Your task to perform on an android device: Open settings on Google Maps Image 0: 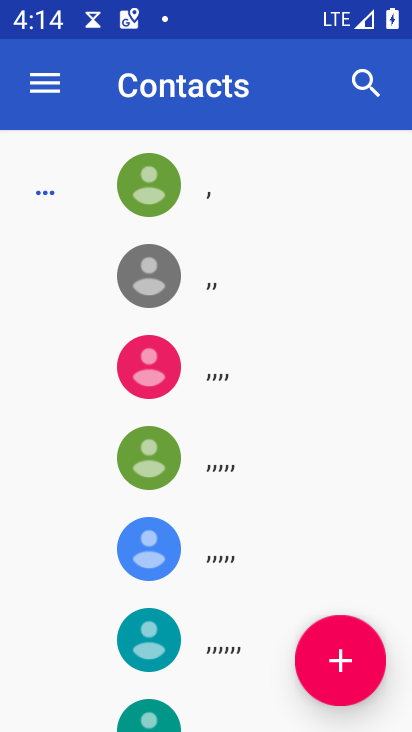
Step 0: press home button
Your task to perform on an android device: Open settings on Google Maps Image 1: 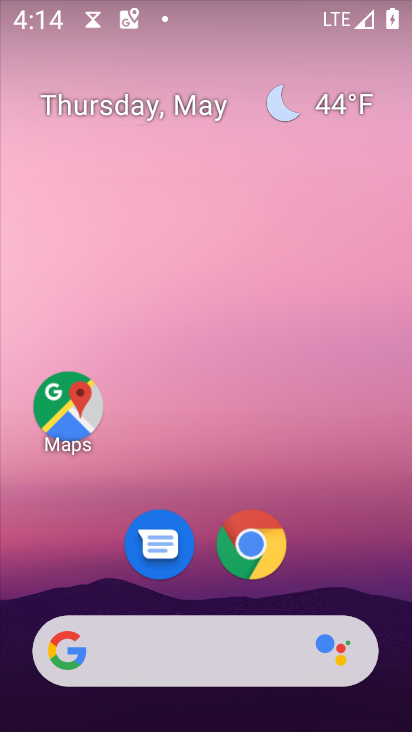
Step 1: click (78, 416)
Your task to perform on an android device: Open settings on Google Maps Image 2: 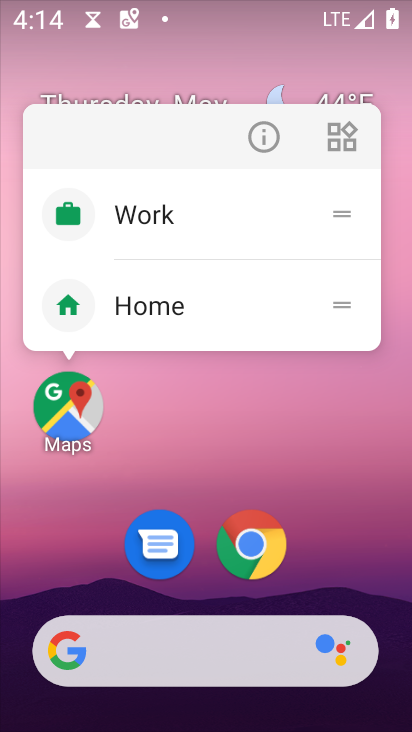
Step 2: click (79, 416)
Your task to perform on an android device: Open settings on Google Maps Image 3: 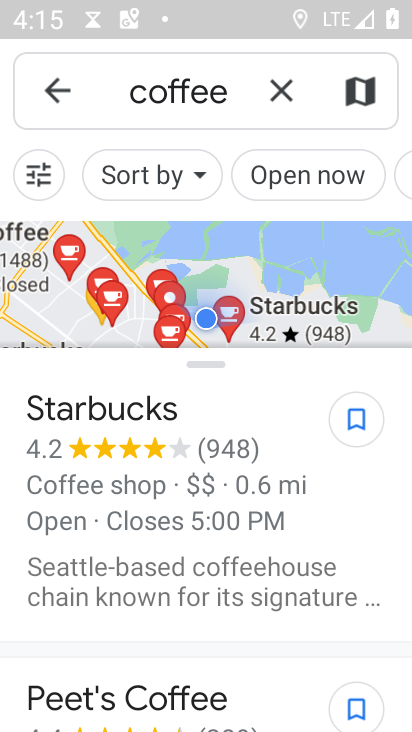
Step 3: click (64, 91)
Your task to perform on an android device: Open settings on Google Maps Image 4: 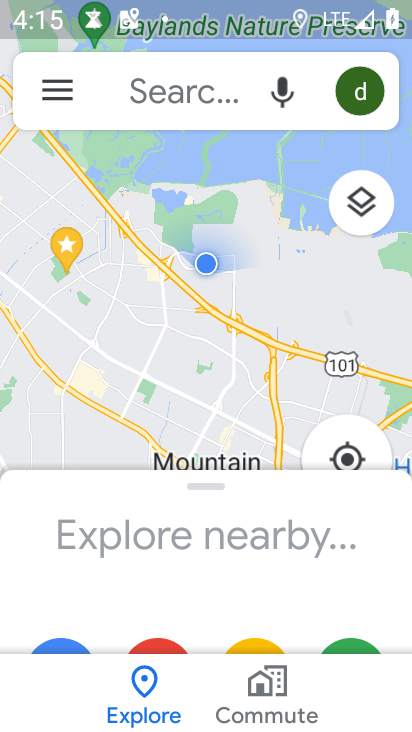
Step 4: click (63, 88)
Your task to perform on an android device: Open settings on Google Maps Image 5: 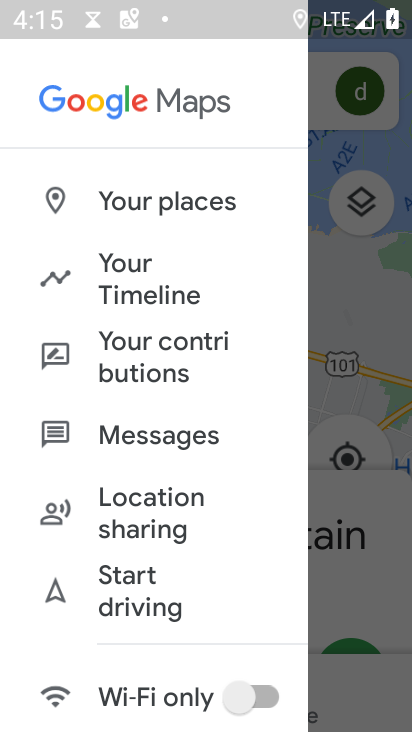
Step 5: drag from (111, 633) to (177, 249)
Your task to perform on an android device: Open settings on Google Maps Image 6: 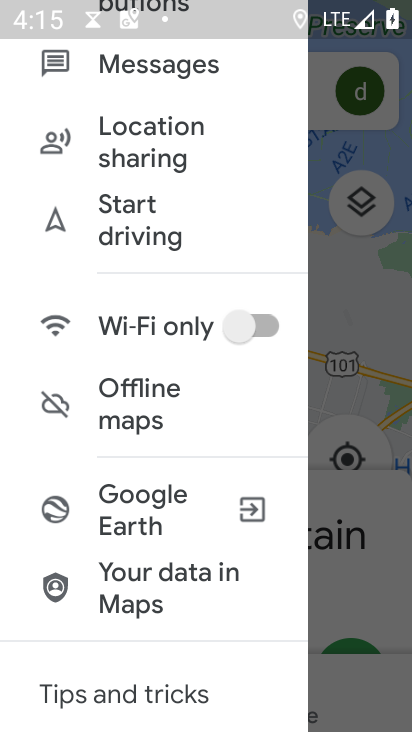
Step 6: drag from (106, 686) to (96, 349)
Your task to perform on an android device: Open settings on Google Maps Image 7: 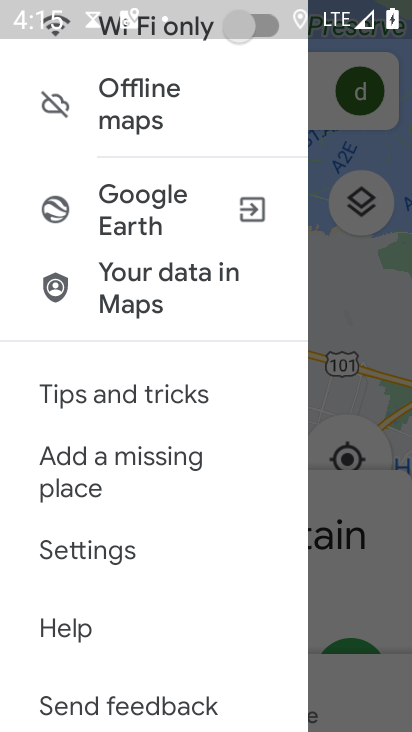
Step 7: click (113, 558)
Your task to perform on an android device: Open settings on Google Maps Image 8: 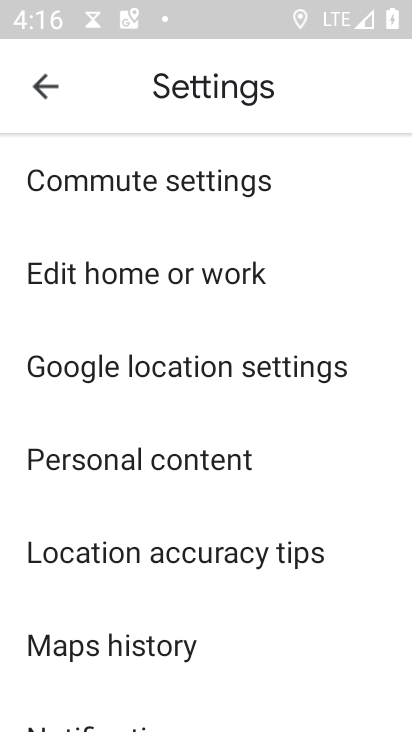
Step 8: task complete